Your task to perform on an android device: change timer sound Image 0: 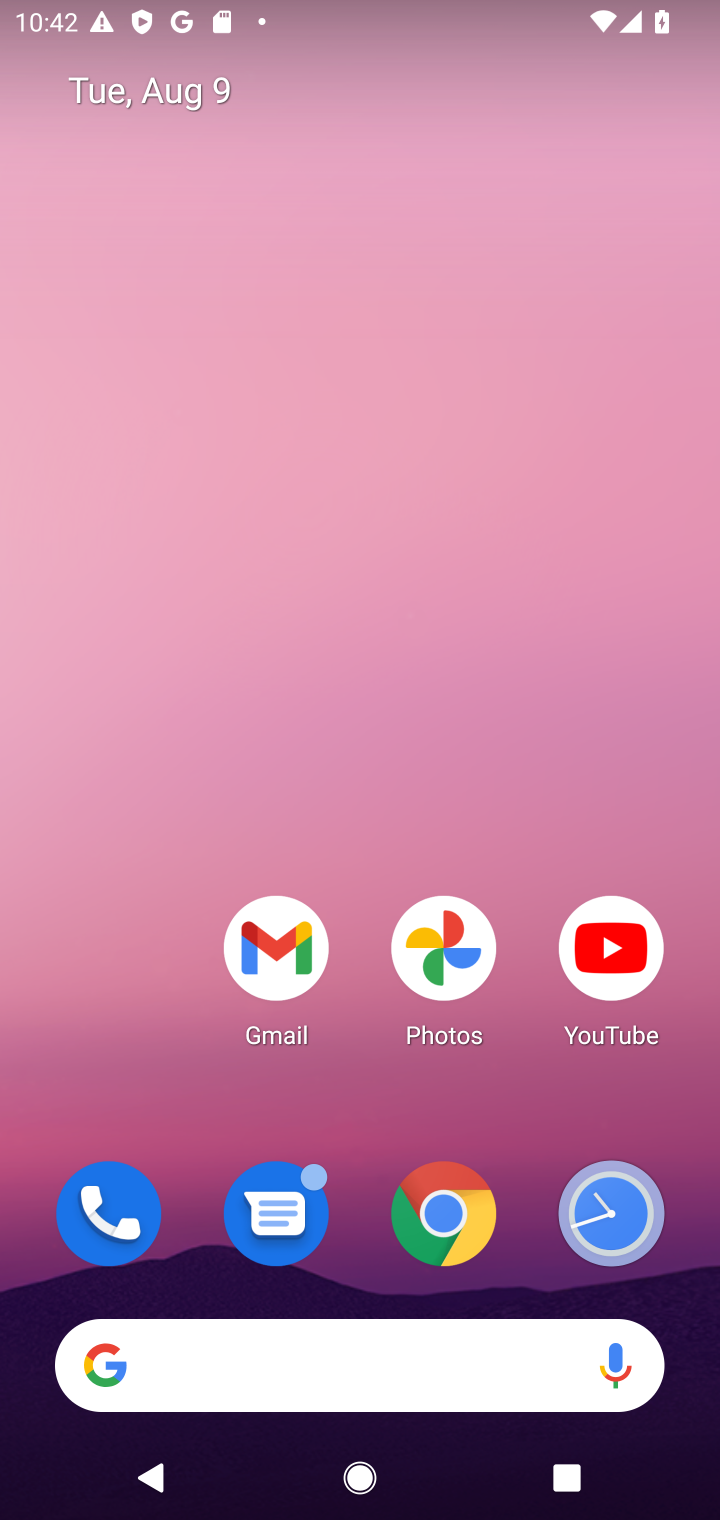
Step 0: drag from (475, 1259) to (477, 69)
Your task to perform on an android device: change timer sound Image 1: 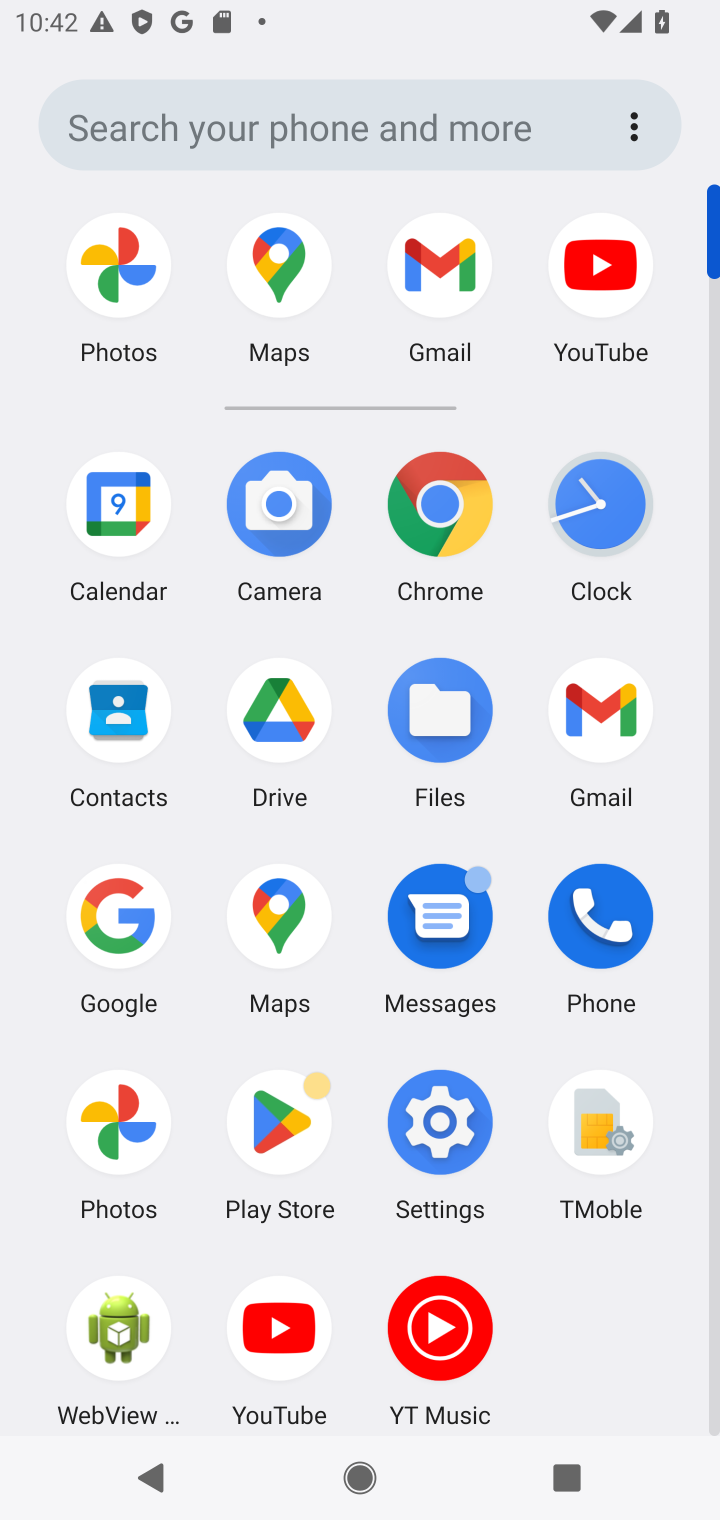
Step 1: click (412, 1149)
Your task to perform on an android device: change timer sound Image 2: 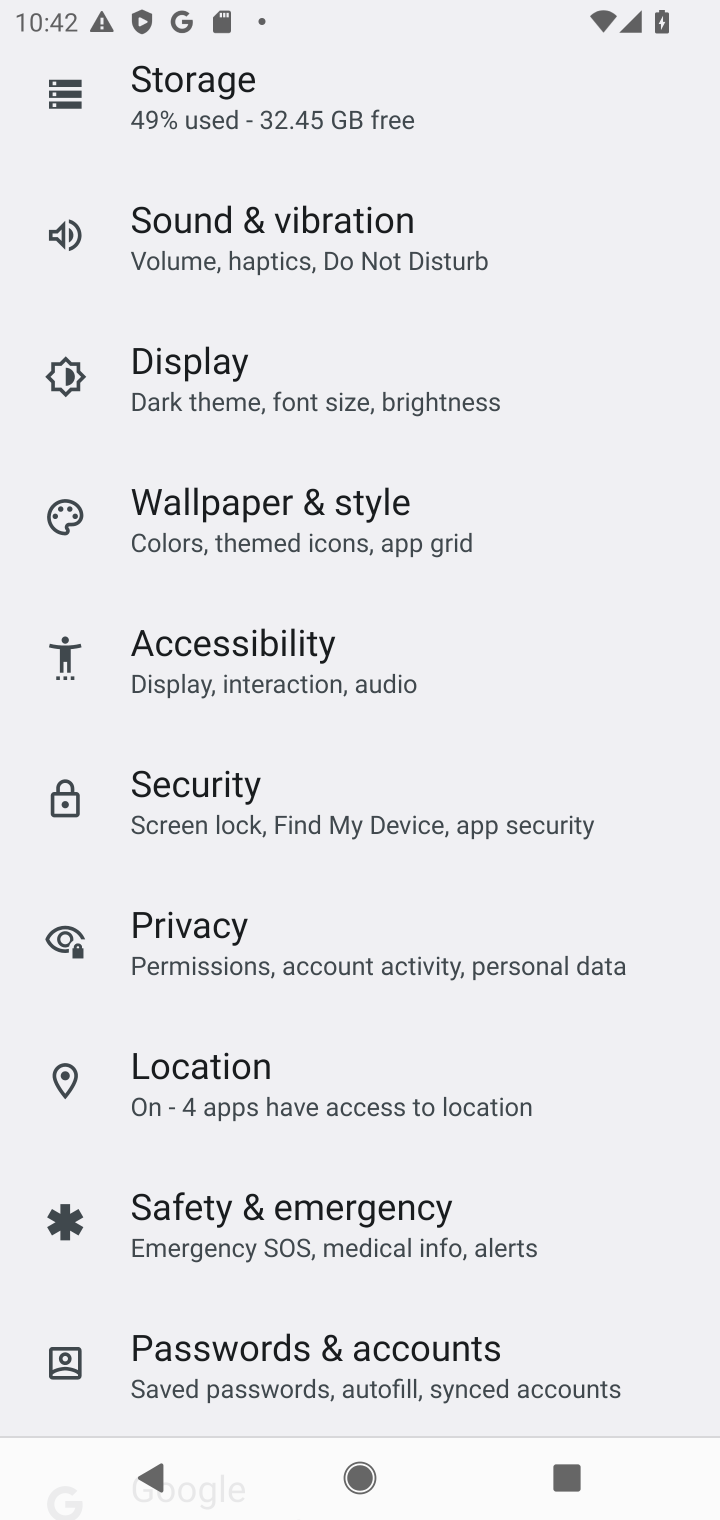
Step 2: drag from (274, 290) to (162, 1056)
Your task to perform on an android device: change timer sound Image 3: 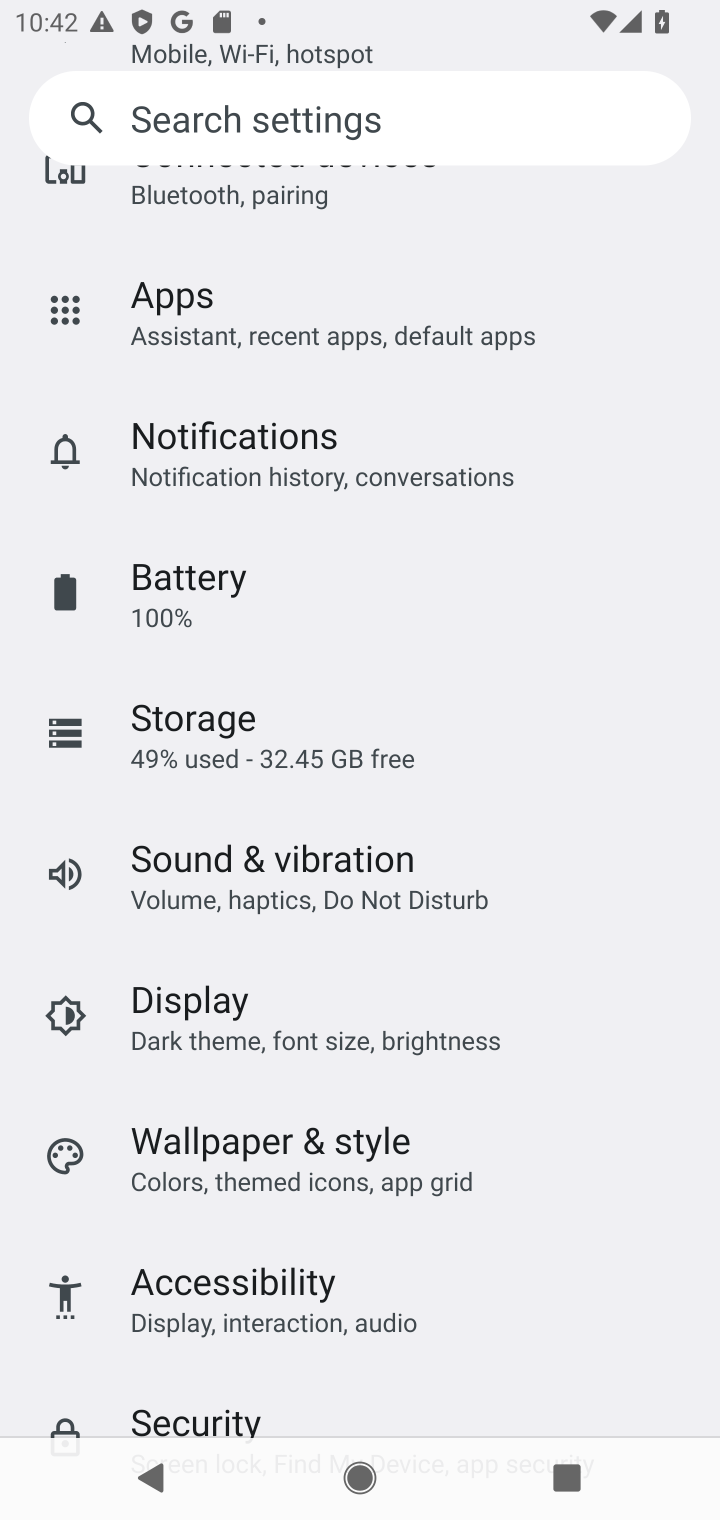
Step 3: press home button
Your task to perform on an android device: change timer sound Image 4: 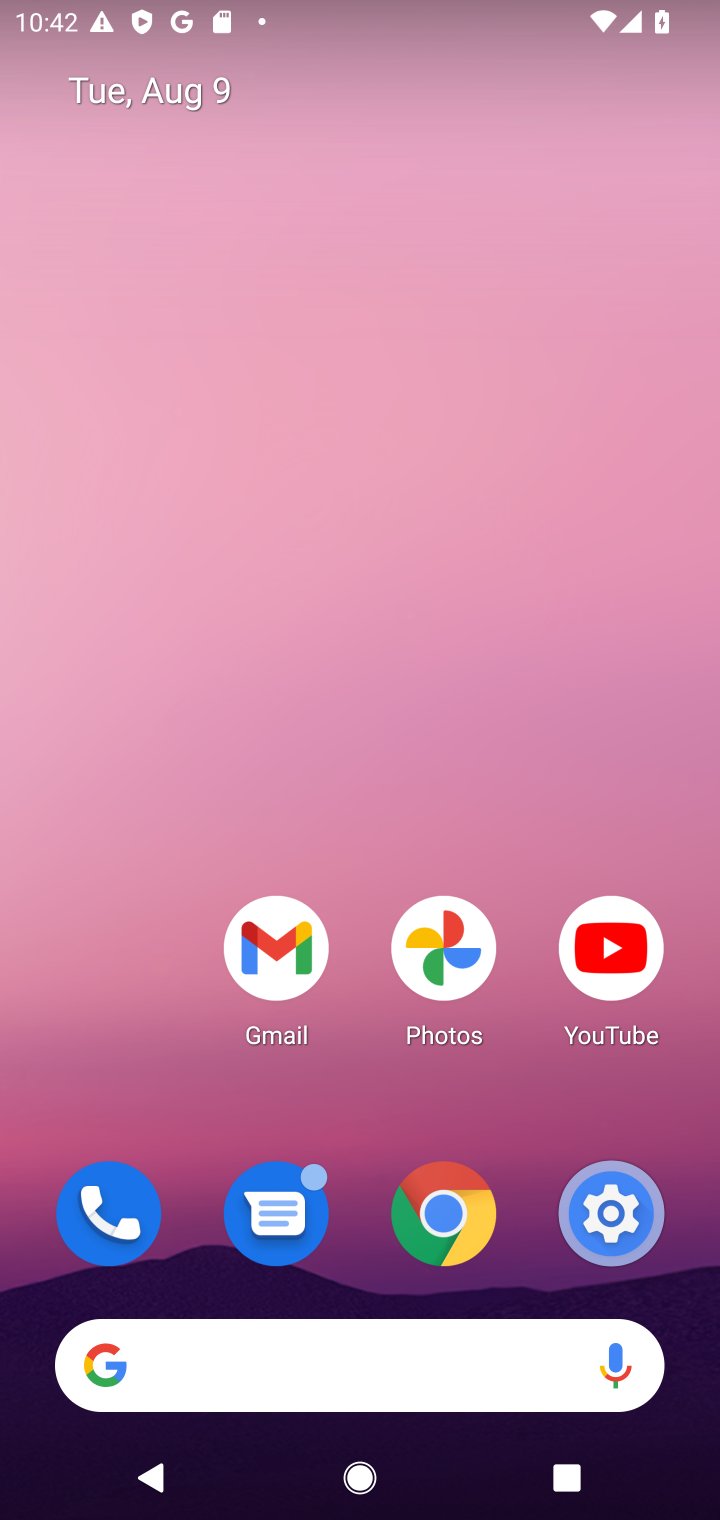
Step 4: drag from (393, 1273) to (128, 89)
Your task to perform on an android device: change timer sound Image 5: 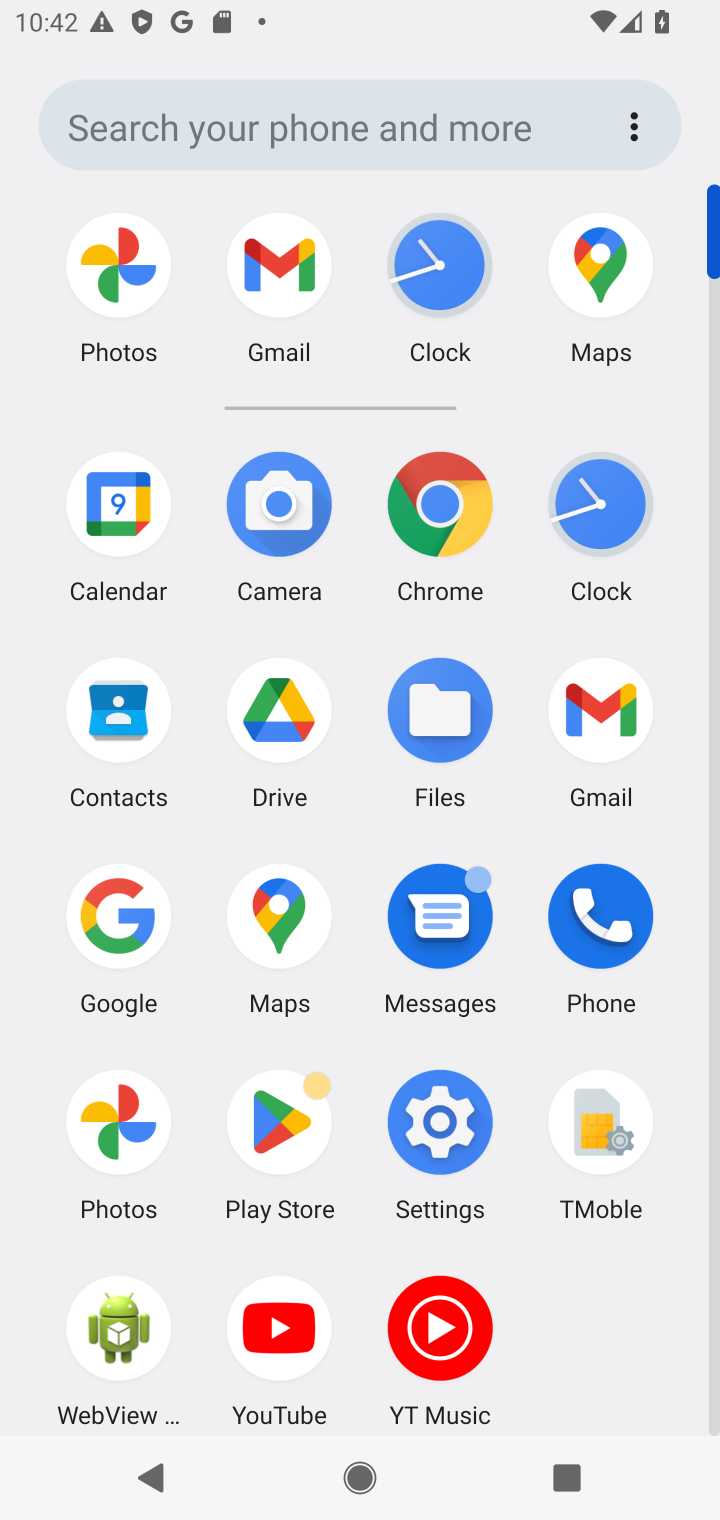
Step 5: click (635, 522)
Your task to perform on an android device: change timer sound Image 6: 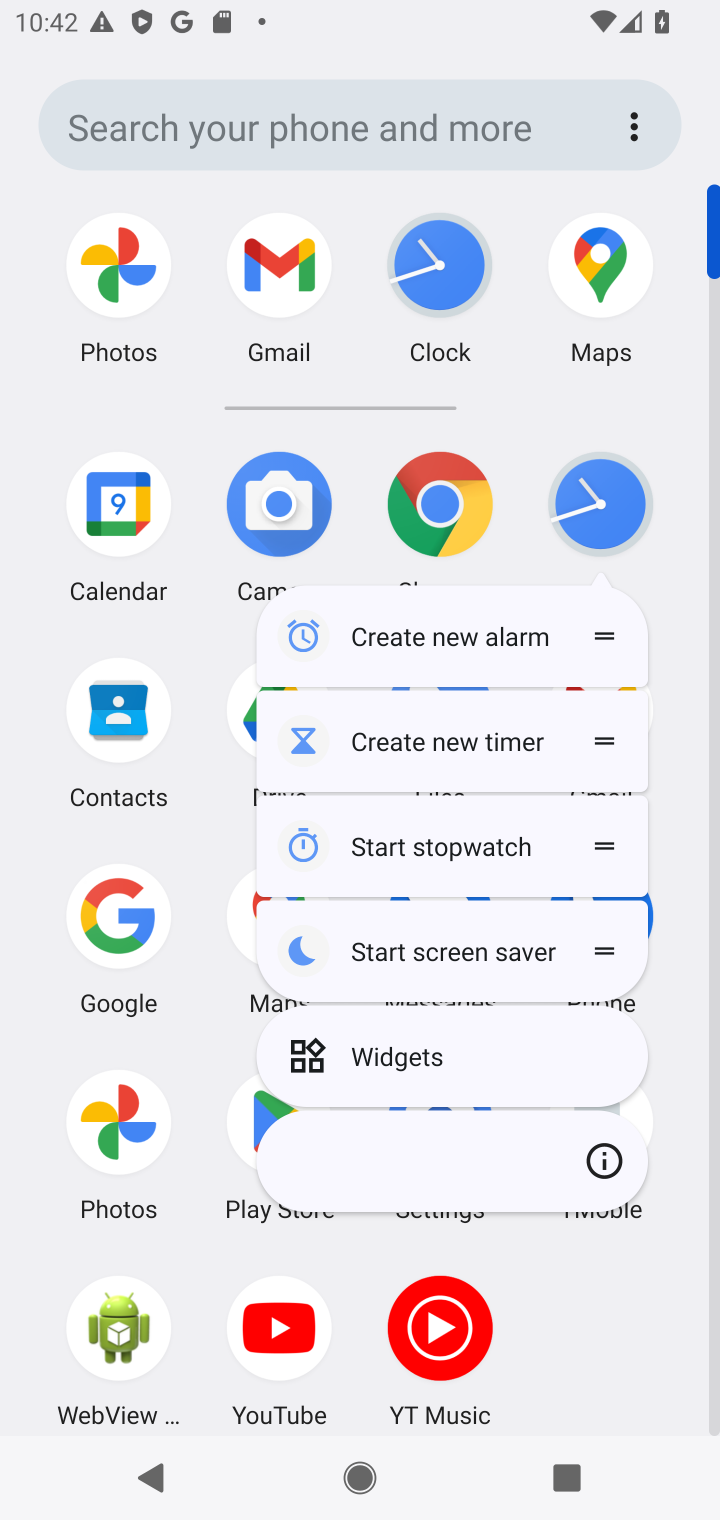
Step 6: click (566, 515)
Your task to perform on an android device: change timer sound Image 7: 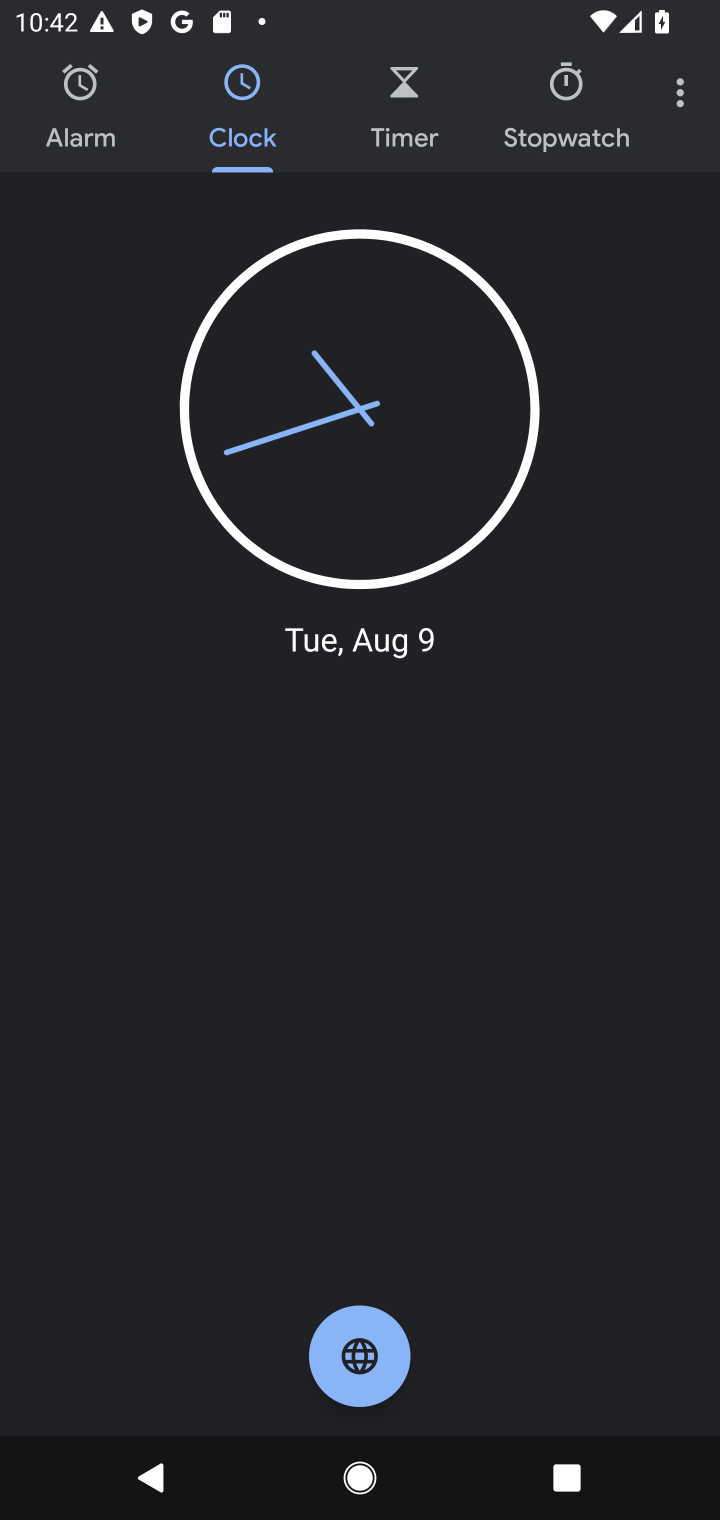
Step 7: click (661, 94)
Your task to perform on an android device: change timer sound Image 8: 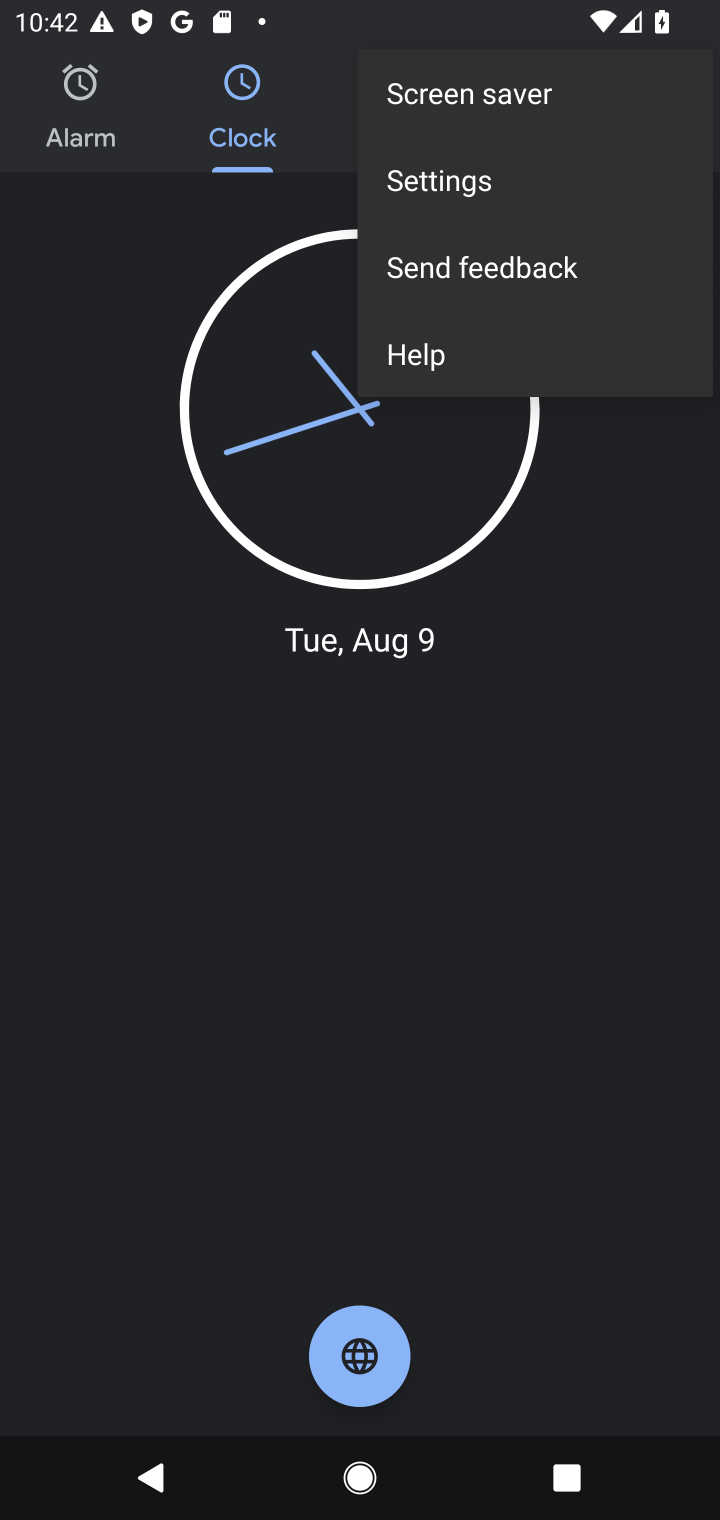
Step 8: click (501, 192)
Your task to perform on an android device: change timer sound Image 9: 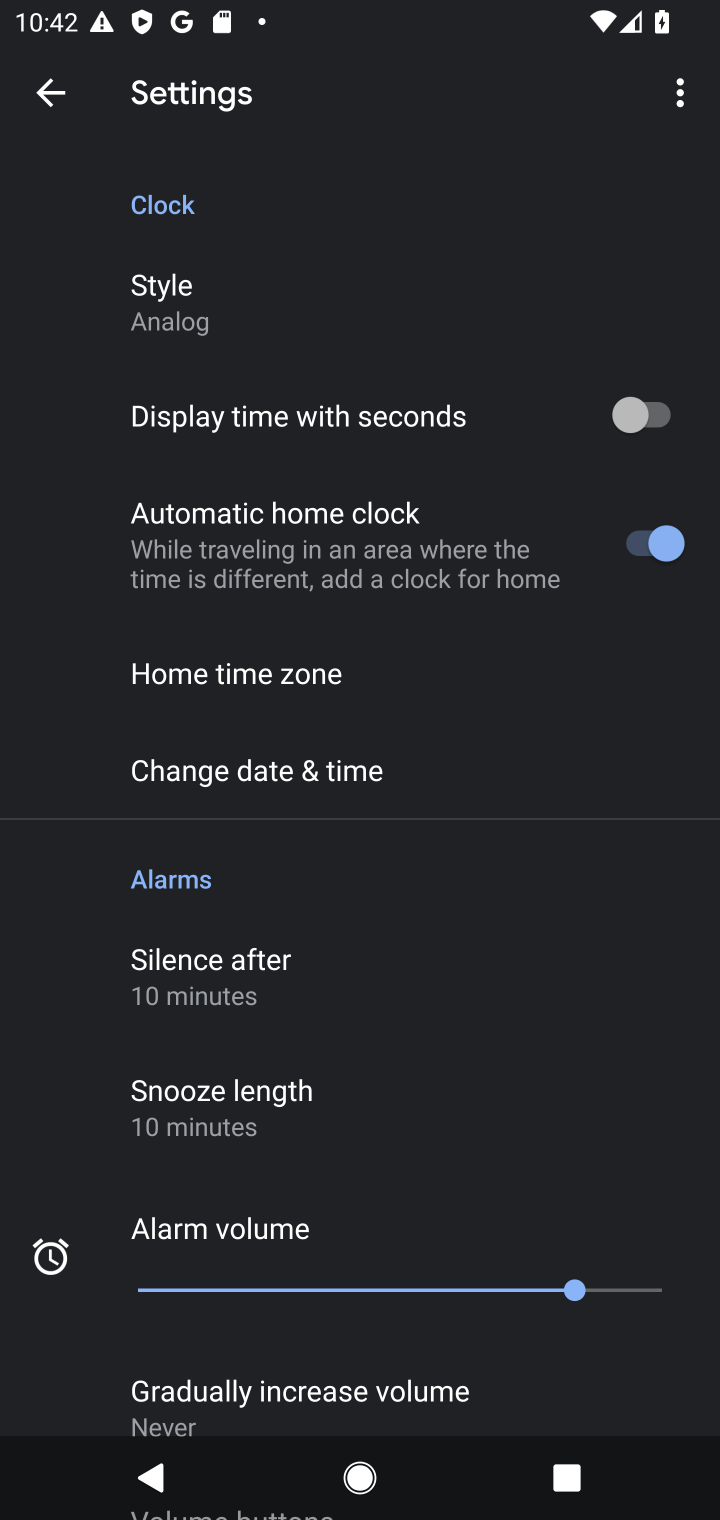
Step 9: drag from (340, 1139) to (311, 53)
Your task to perform on an android device: change timer sound Image 10: 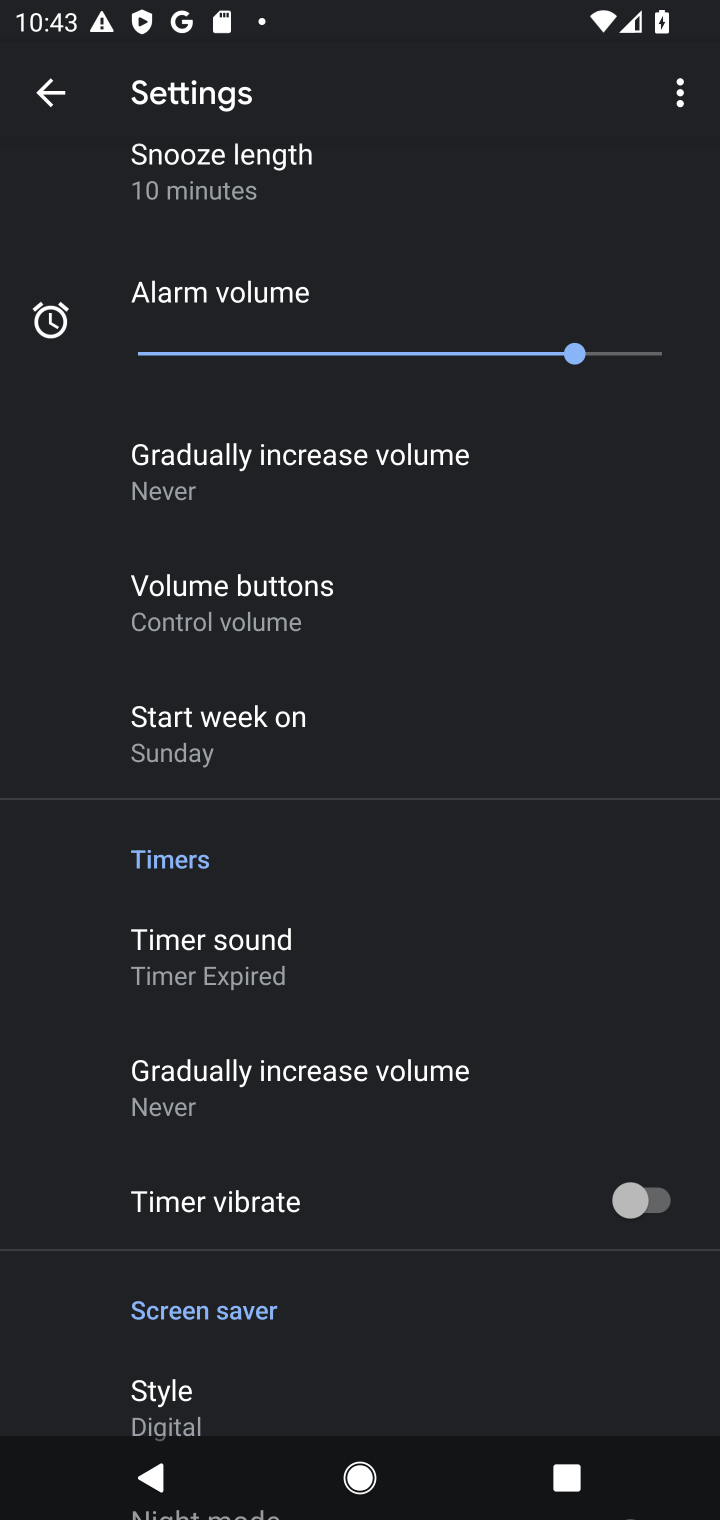
Step 10: click (301, 943)
Your task to perform on an android device: change timer sound Image 11: 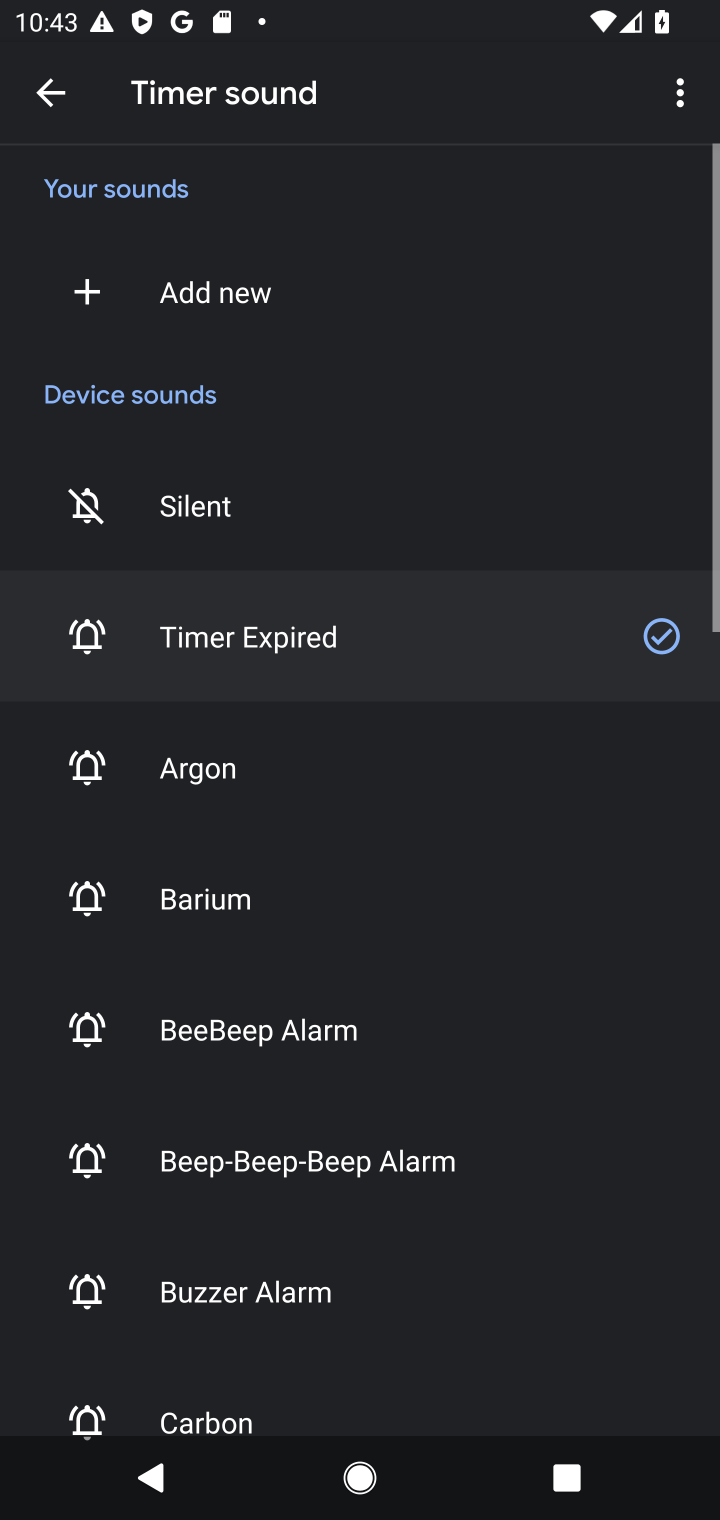
Step 11: click (278, 822)
Your task to perform on an android device: change timer sound Image 12: 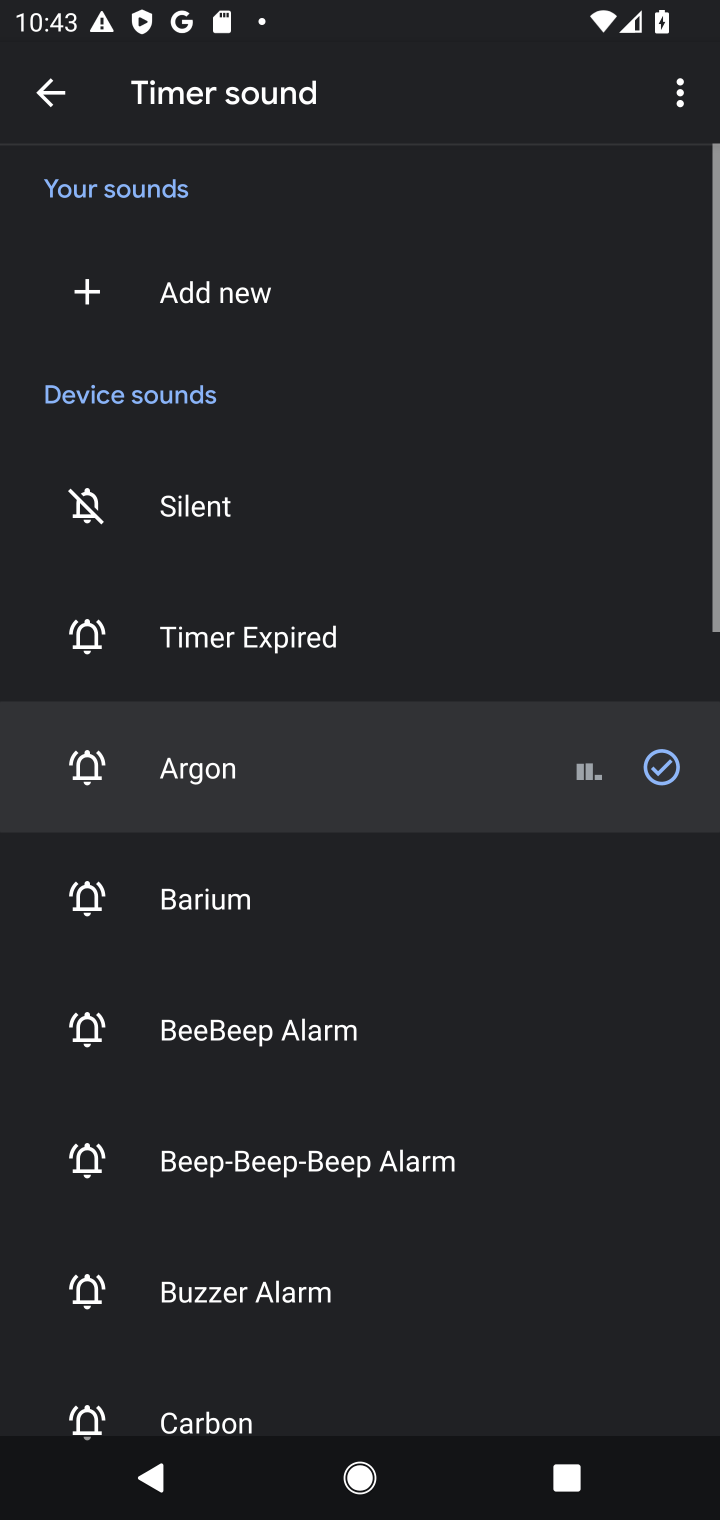
Step 12: task complete